Your task to perform on an android device: Search for the new Nintendo switch on Best Buy Image 0: 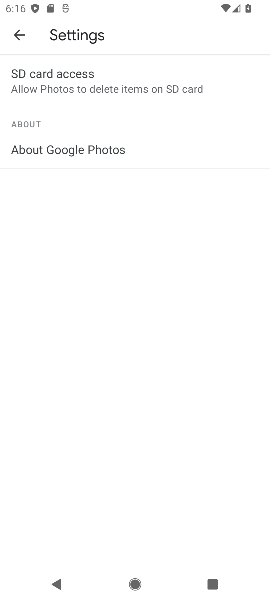
Step 0: press home button
Your task to perform on an android device: Search for the new Nintendo switch on Best Buy Image 1: 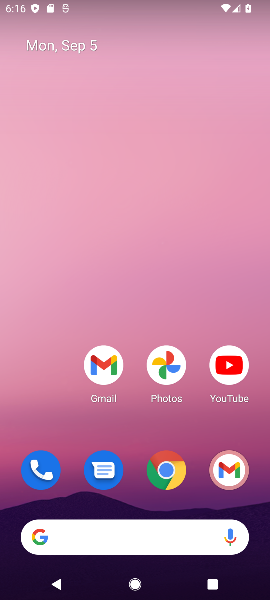
Step 1: click (122, 528)
Your task to perform on an android device: Search for the new Nintendo switch on Best Buy Image 2: 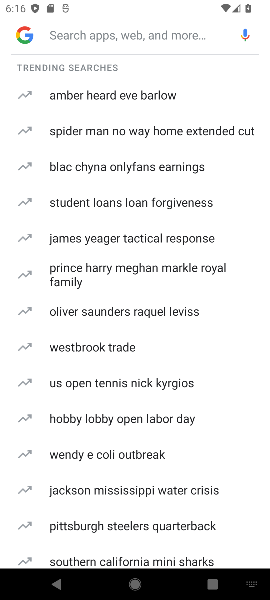
Step 2: type "best buy"
Your task to perform on an android device: Search for the new Nintendo switch on Best Buy Image 3: 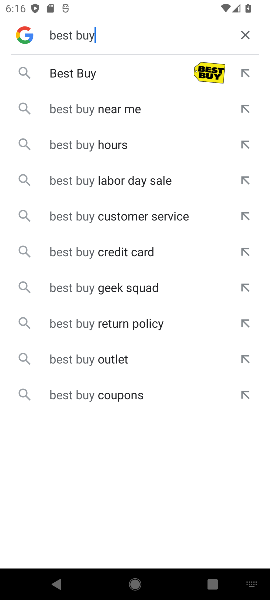
Step 3: click (88, 72)
Your task to perform on an android device: Search for the new Nintendo switch on Best Buy Image 4: 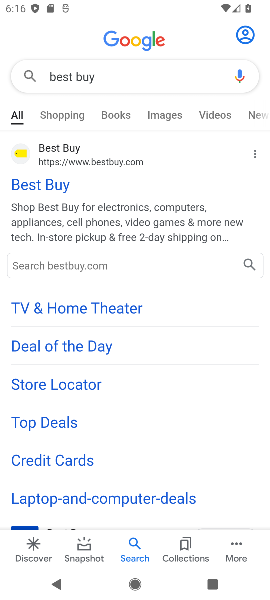
Step 4: click (38, 177)
Your task to perform on an android device: Search for the new Nintendo switch on Best Buy Image 5: 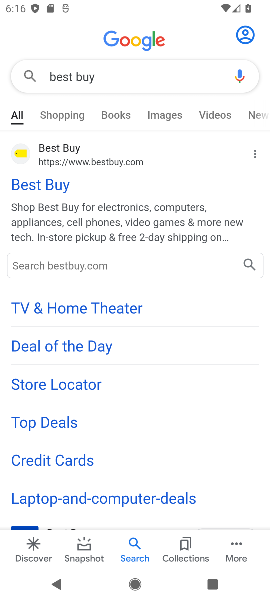
Step 5: click (48, 178)
Your task to perform on an android device: Search for the new Nintendo switch on Best Buy Image 6: 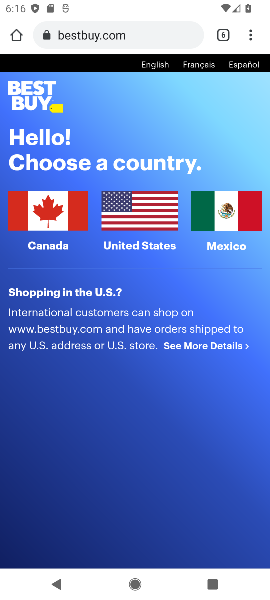
Step 6: click (140, 218)
Your task to perform on an android device: Search for the new Nintendo switch on Best Buy Image 7: 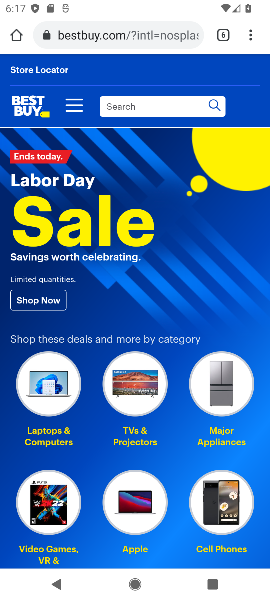
Step 7: click (155, 103)
Your task to perform on an android device: Search for the new Nintendo switch on Best Buy Image 8: 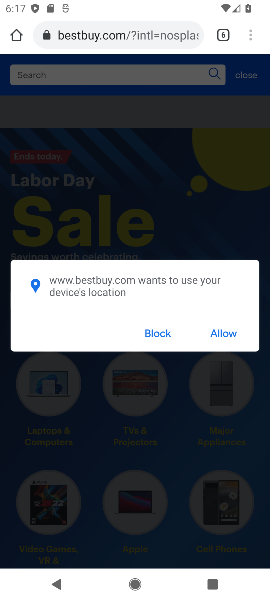
Step 8: click (232, 334)
Your task to perform on an android device: Search for the new Nintendo switch on Best Buy Image 9: 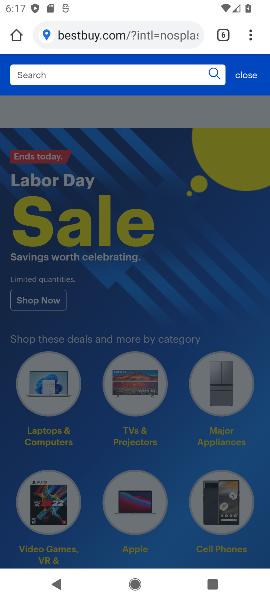
Step 9: click (123, 78)
Your task to perform on an android device: Search for the new Nintendo switch on Best Buy Image 10: 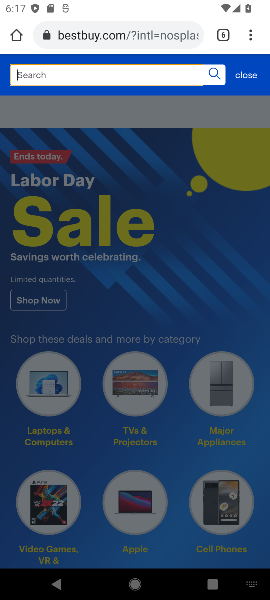
Step 10: type "new nintendo switch"
Your task to perform on an android device: Search for the new Nintendo switch on Best Buy Image 11: 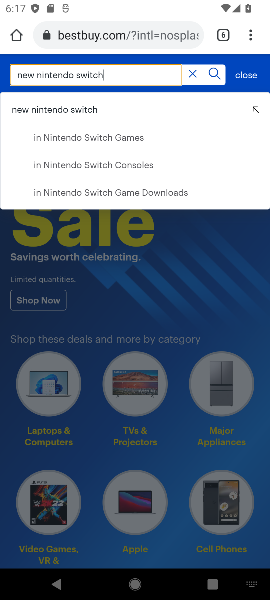
Step 11: click (213, 71)
Your task to perform on an android device: Search for the new Nintendo switch on Best Buy Image 12: 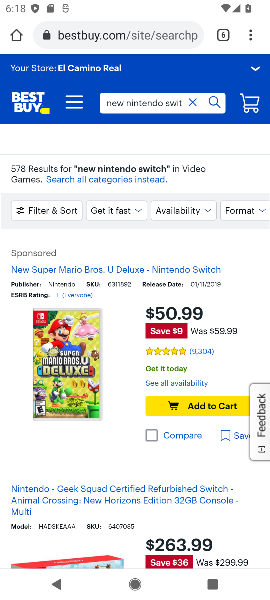
Step 12: task complete